Your task to perform on an android device: How much does a 2 bedroom apartment rent for in Houston? Image 0: 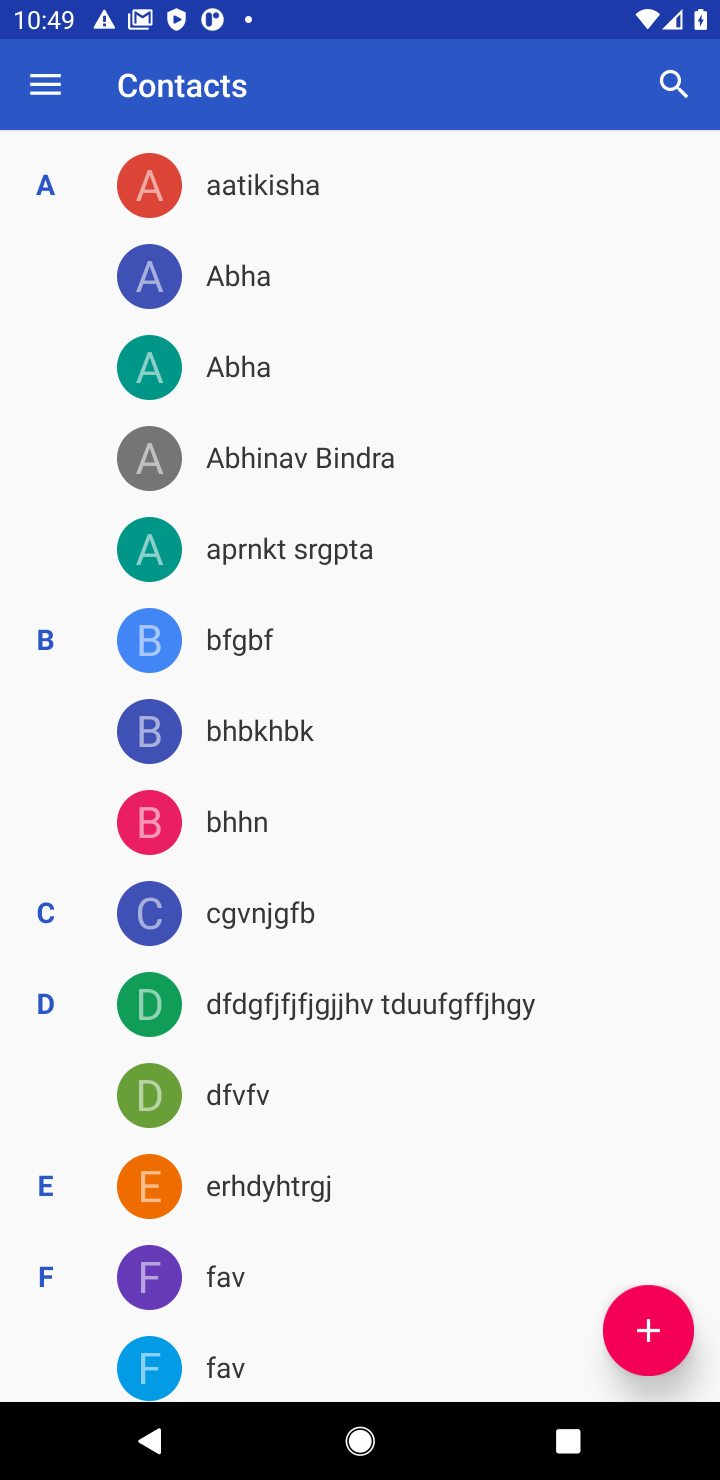
Step 0: press home button
Your task to perform on an android device: How much does a 2 bedroom apartment rent for in Houston? Image 1: 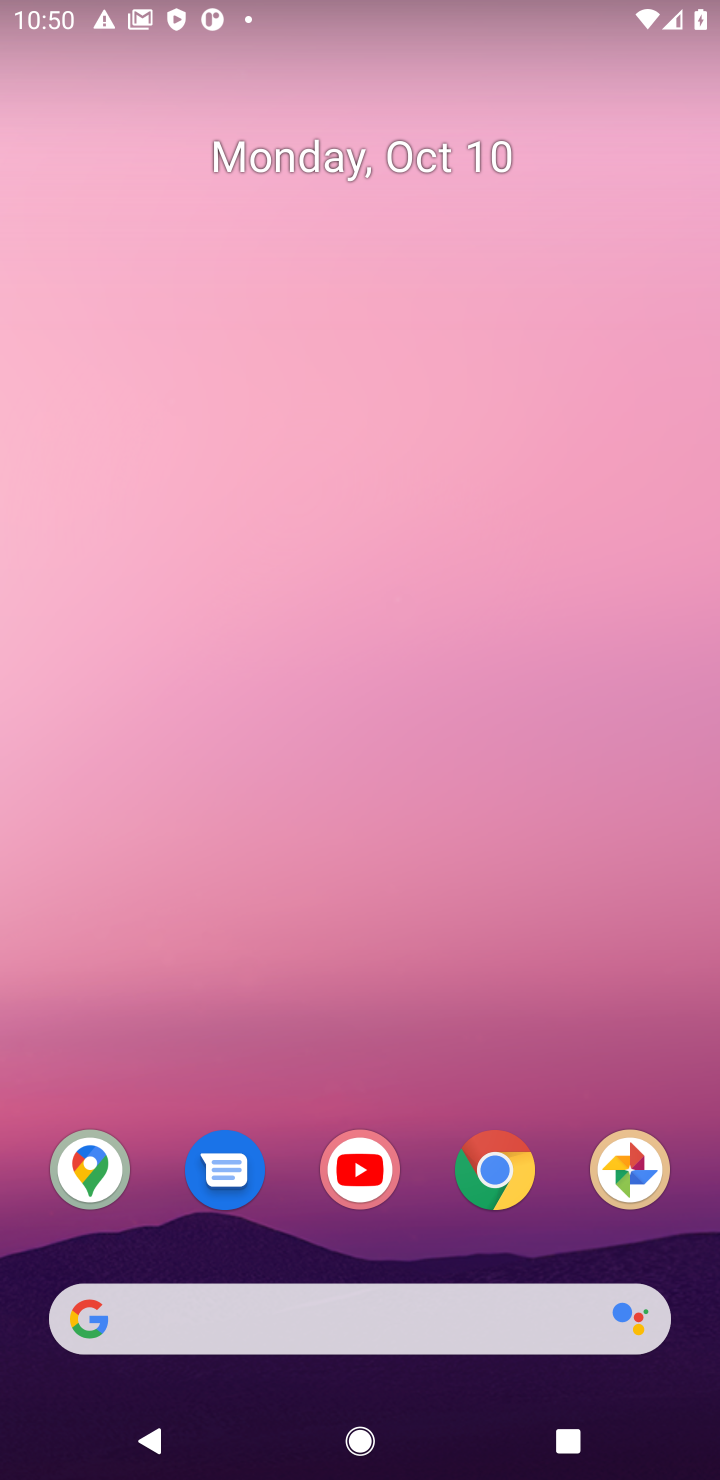
Step 1: drag from (324, 1212) to (392, 708)
Your task to perform on an android device: How much does a 2 bedroom apartment rent for in Houston? Image 2: 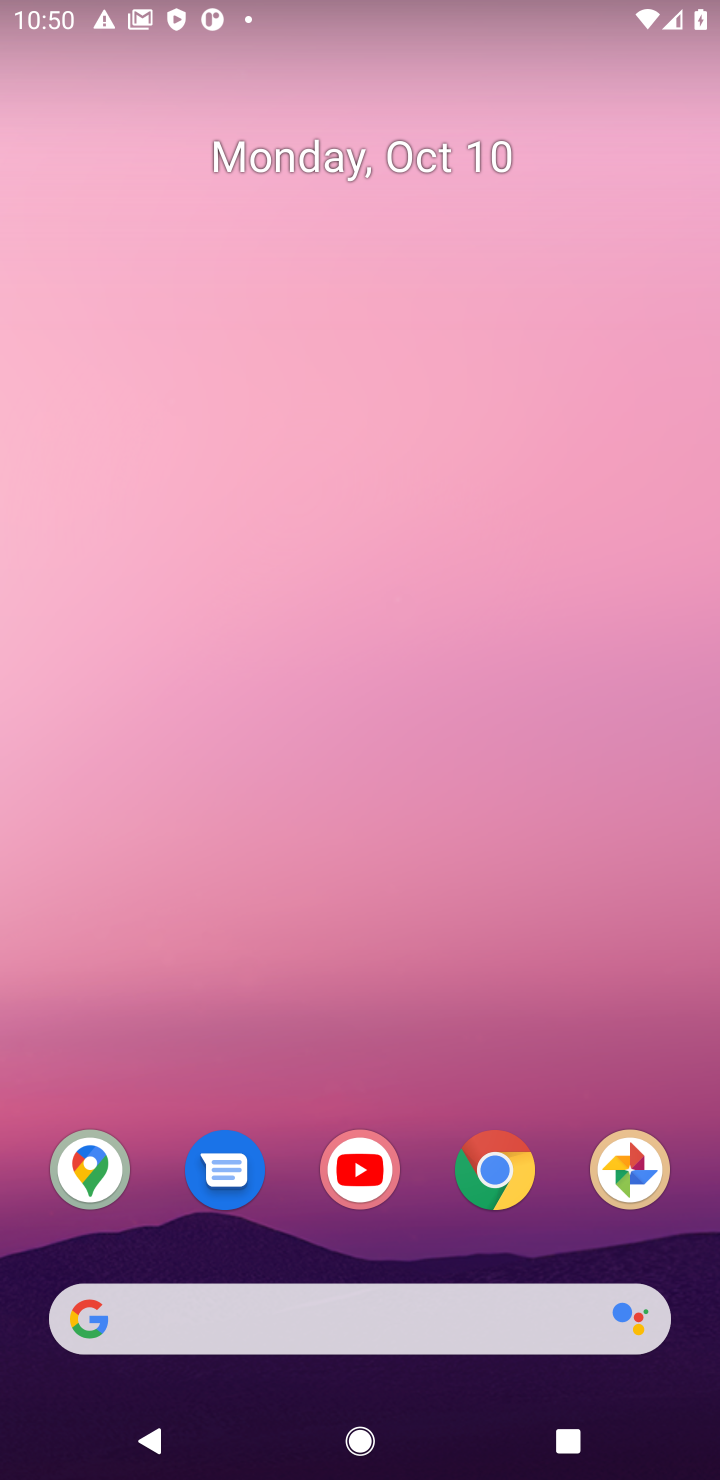
Step 2: click (393, 753)
Your task to perform on an android device: How much does a 2 bedroom apartment rent for in Houston? Image 3: 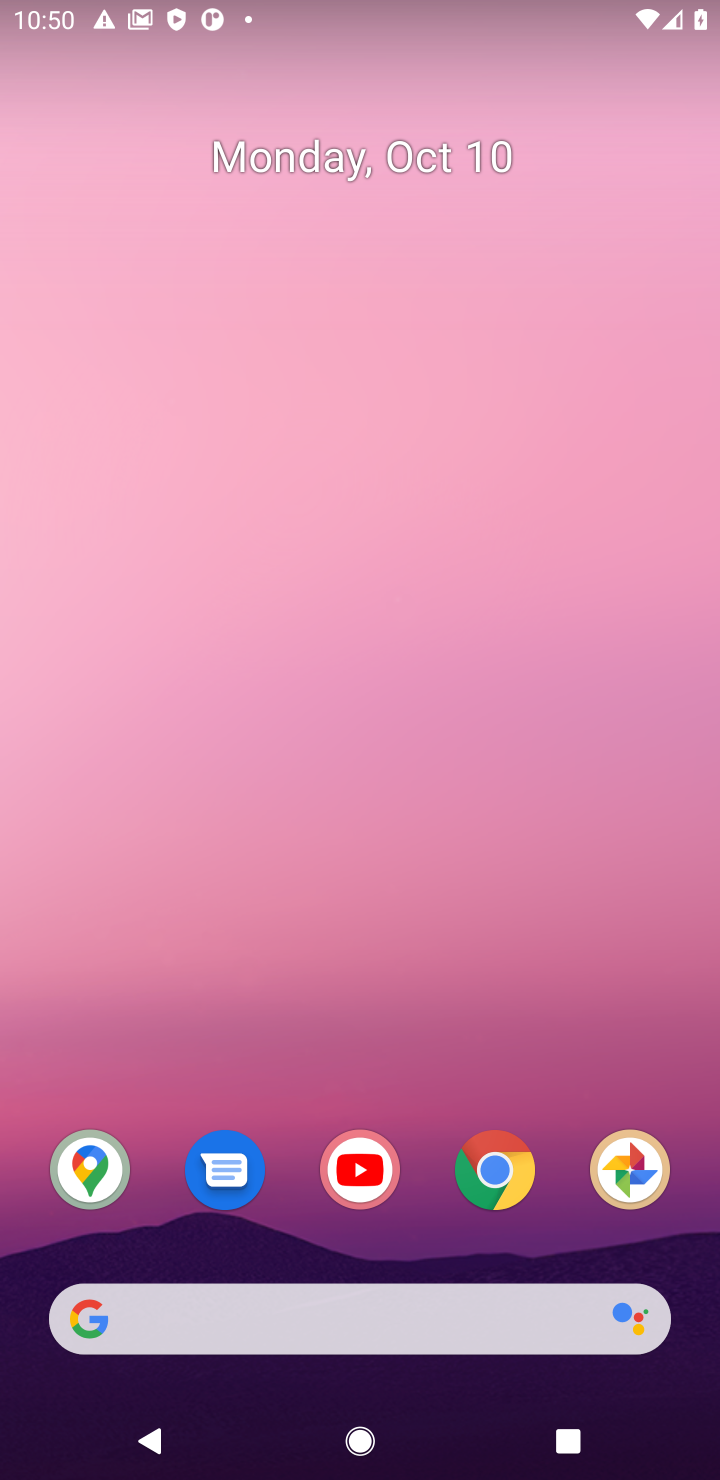
Step 3: drag from (301, 1261) to (372, 483)
Your task to perform on an android device: How much does a 2 bedroom apartment rent for in Houston? Image 4: 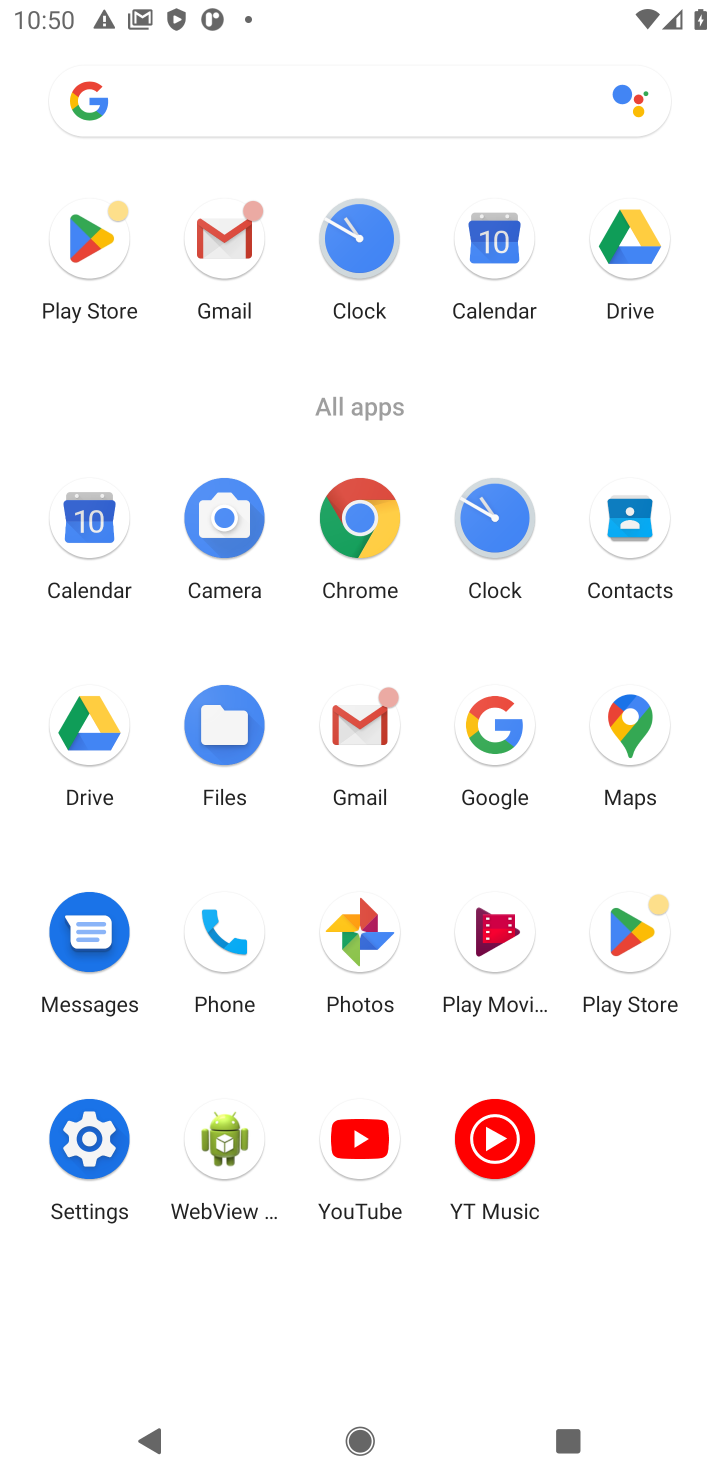
Step 4: click (474, 755)
Your task to perform on an android device: How much does a 2 bedroom apartment rent for in Houston? Image 5: 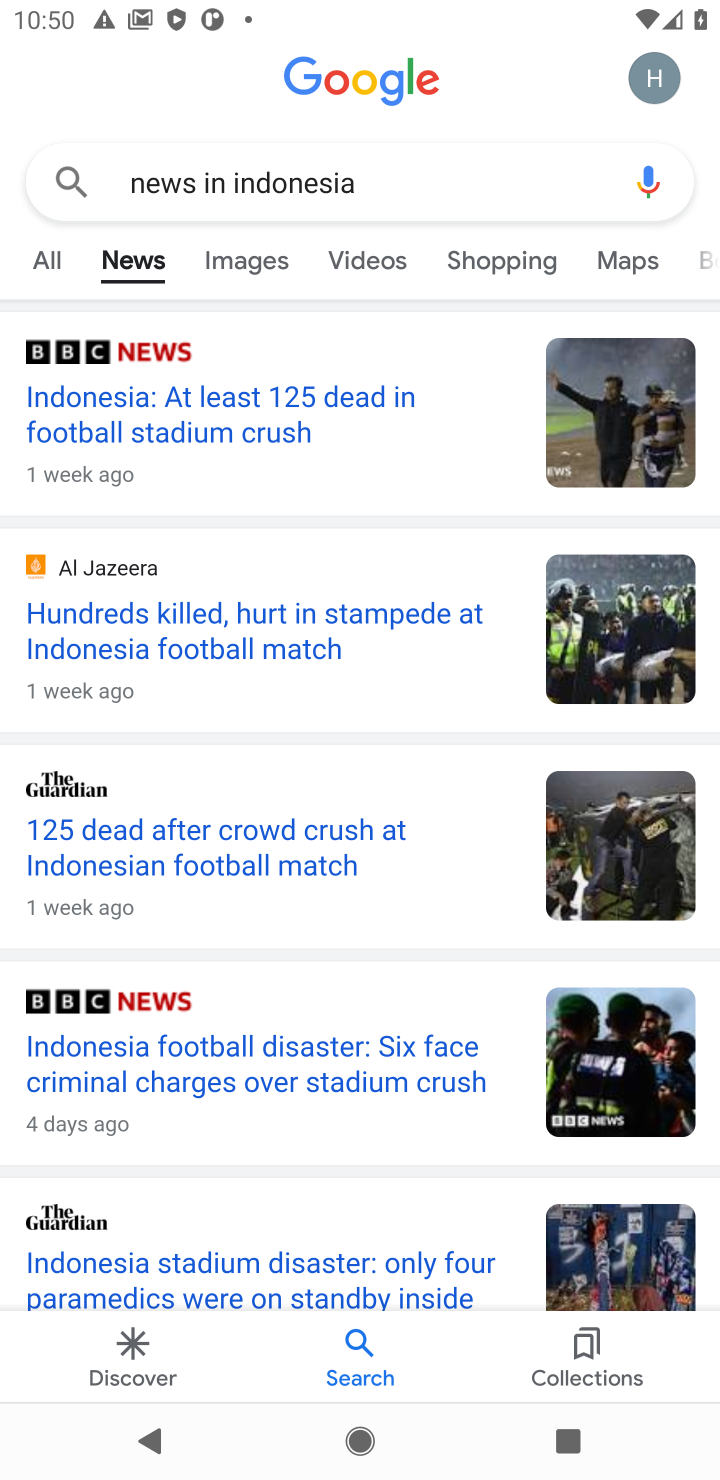
Step 5: click (433, 207)
Your task to perform on an android device: How much does a 2 bedroom apartment rent for in Houston? Image 6: 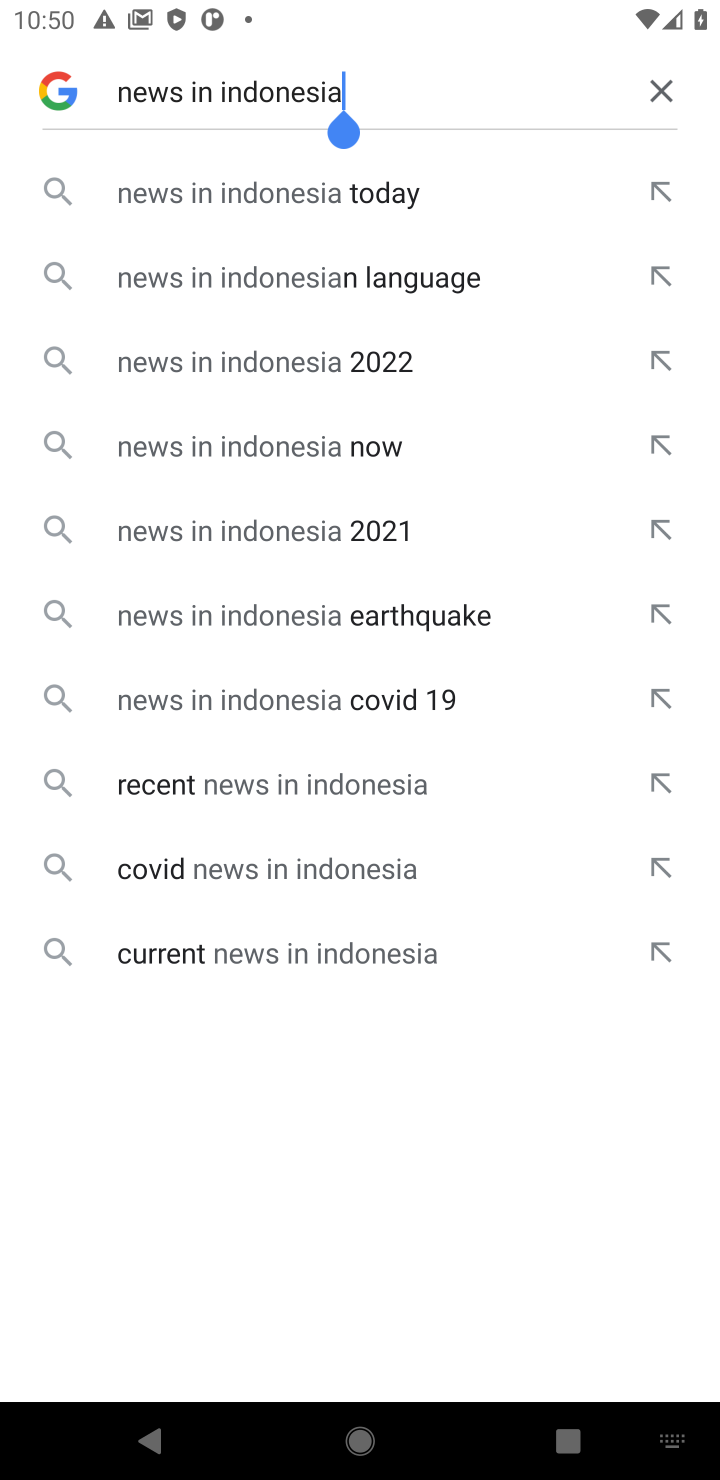
Step 6: click (671, 84)
Your task to perform on an android device: How much does a 2 bedroom apartment rent for in Houston? Image 7: 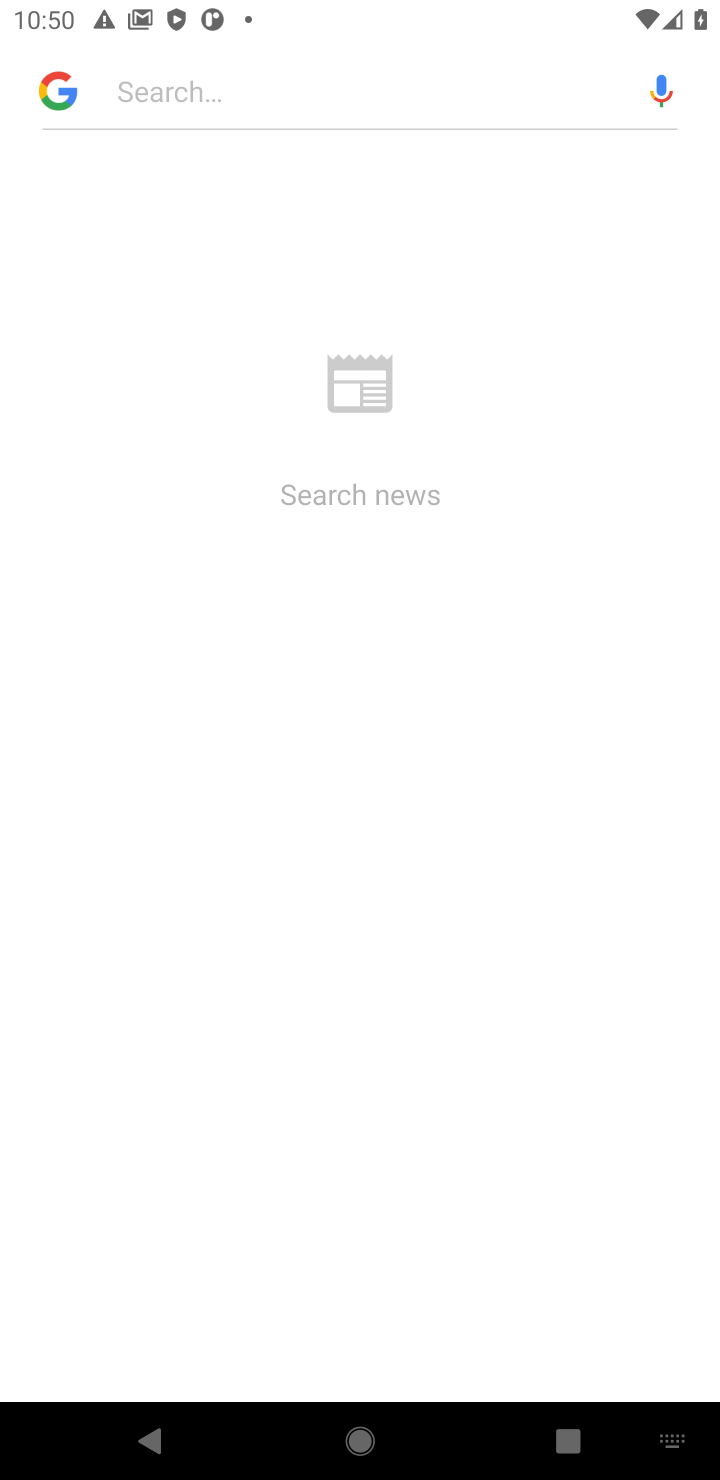
Step 7: type "How much does a 2 bedroom apartment rent for in Houston?"
Your task to perform on an android device: How much does a 2 bedroom apartment rent for in Houston? Image 8: 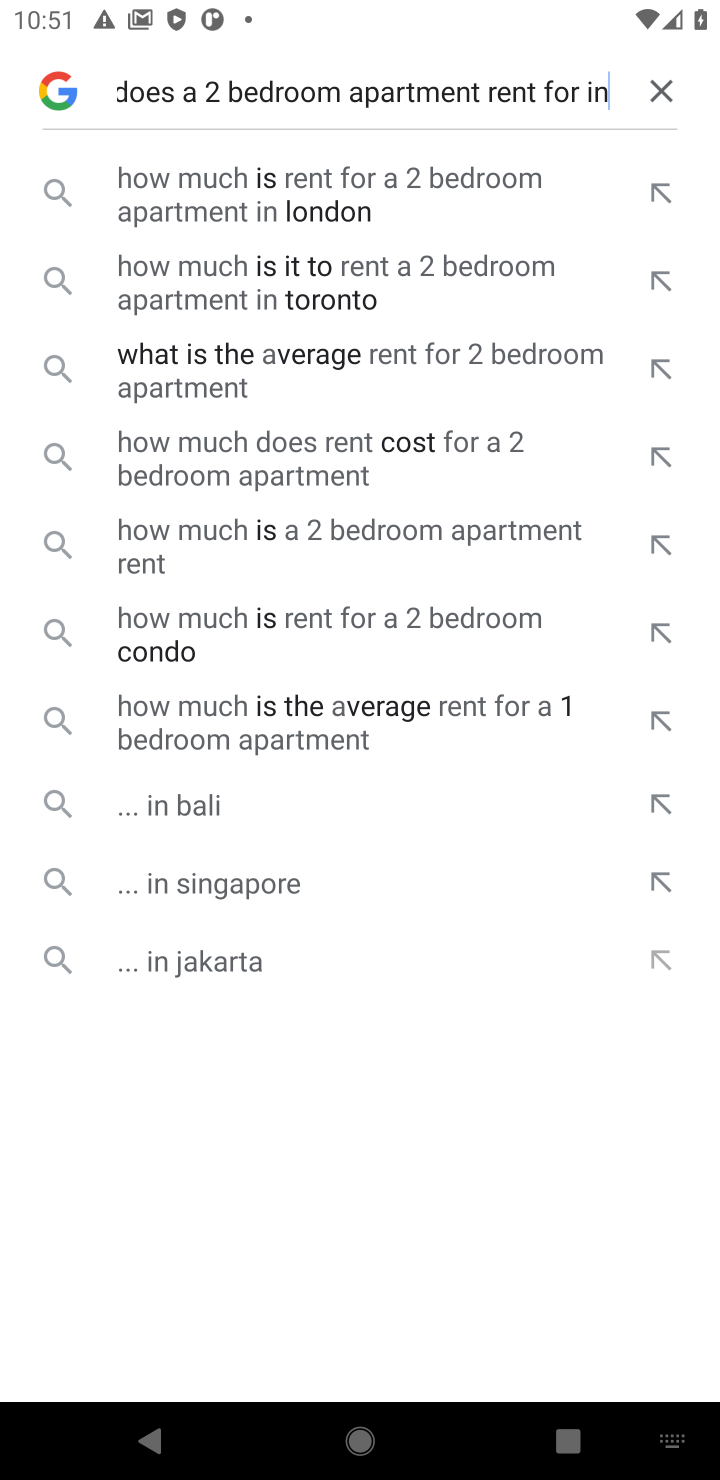
Step 8: click (243, 177)
Your task to perform on an android device: How much does a 2 bedroom apartment rent for in Houston? Image 9: 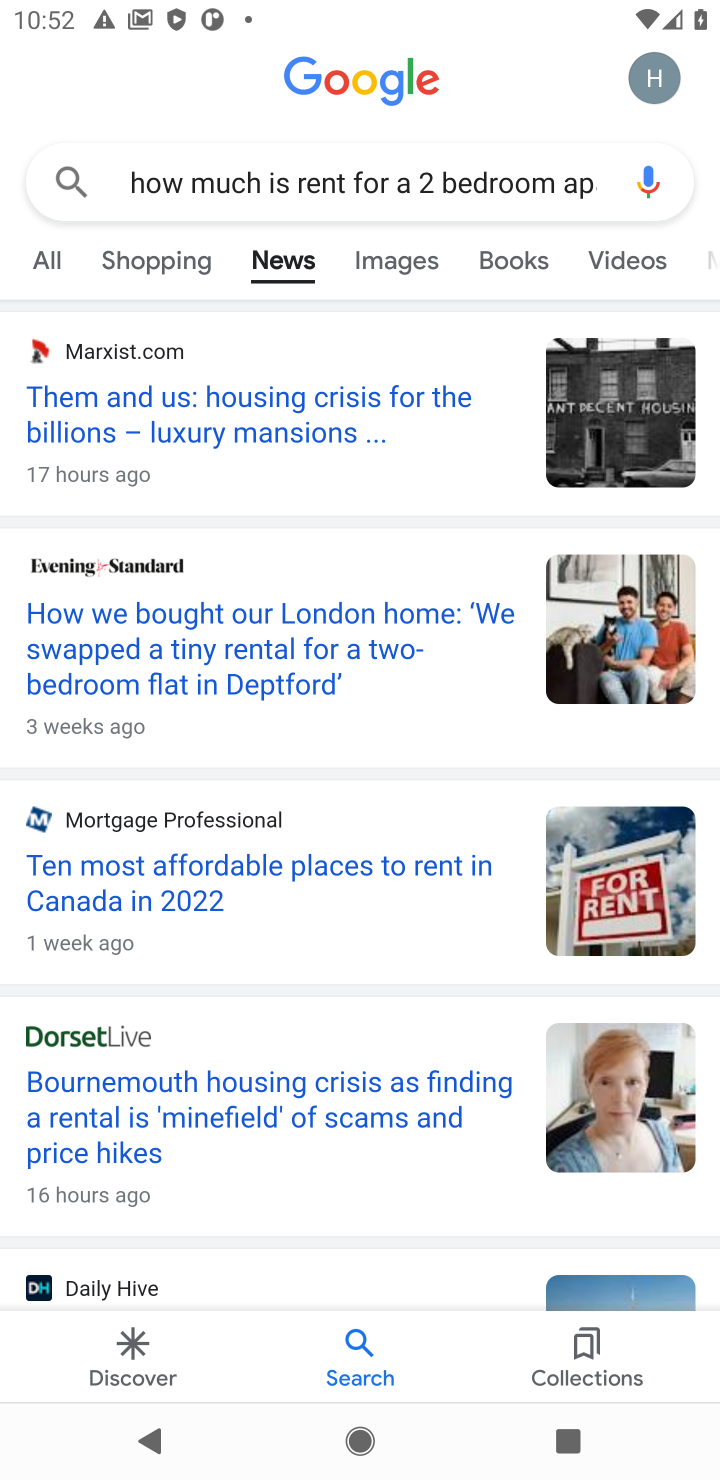
Step 9: task complete